Your task to perform on an android device: toggle notifications settings in the gmail app Image 0: 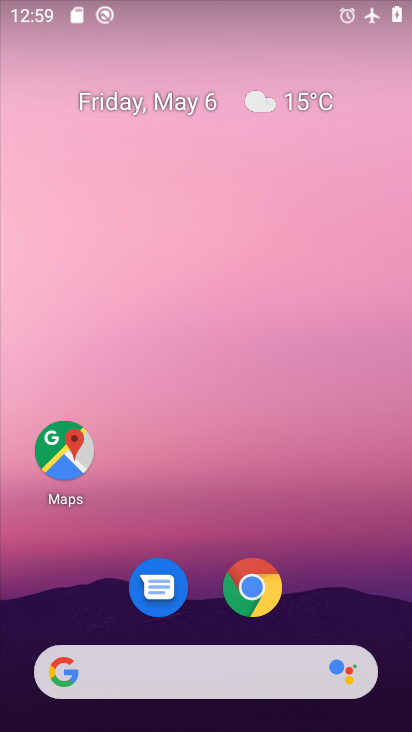
Step 0: drag from (371, 600) to (284, 25)
Your task to perform on an android device: toggle notifications settings in the gmail app Image 1: 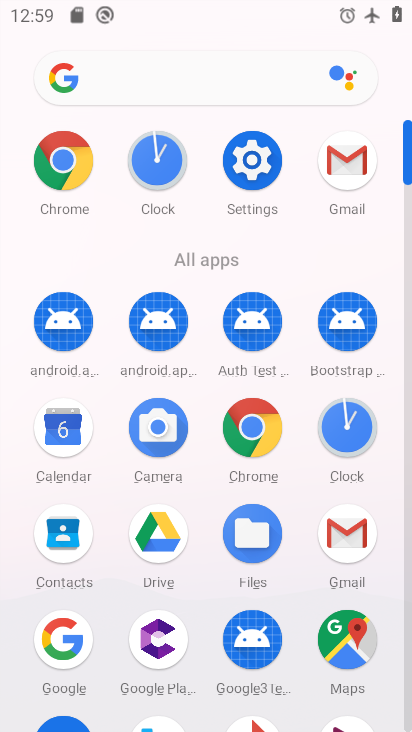
Step 1: click (348, 508)
Your task to perform on an android device: toggle notifications settings in the gmail app Image 2: 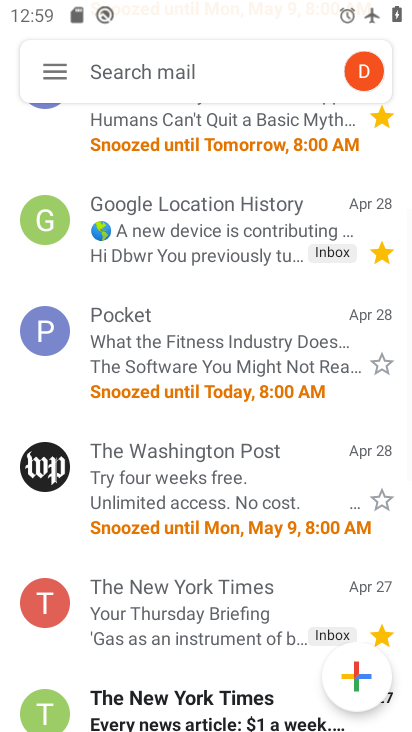
Step 2: click (60, 74)
Your task to perform on an android device: toggle notifications settings in the gmail app Image 3: 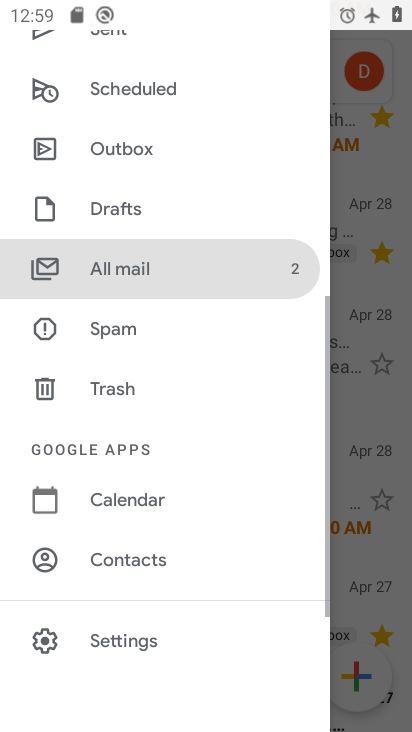
Step 3: click (131, 626)
Your task to perform on an android device: toggle notifications settings in the gmail app Image 4: 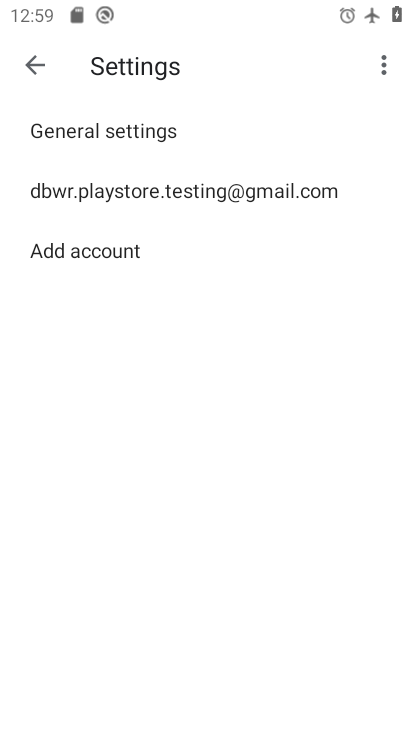
Step 4: click (178, 191)
Your task to perform on an android device: toggle notifications settings in the gmail app Image 5: 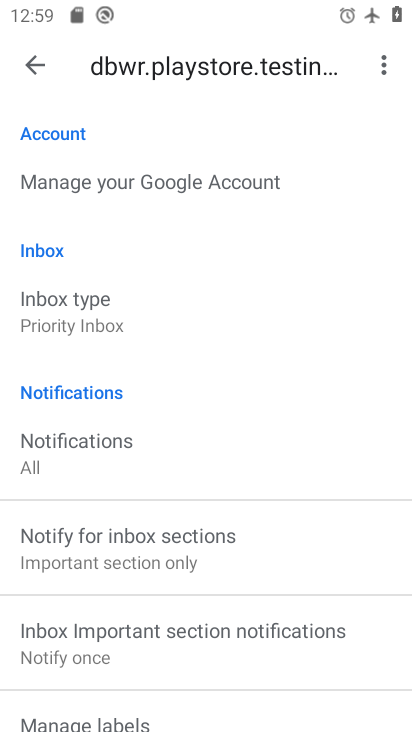
Step 5: click (149, 454)
Your task to perform on an android device: toggle notifications settings in the gmail app Image 6: 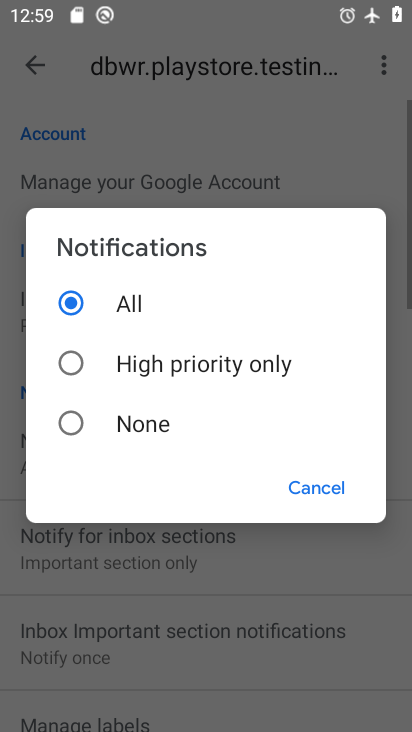
Step 6: click (149, 423)
Your task to perform on an android device: toggle notifications settings in the gmail app Image 7: 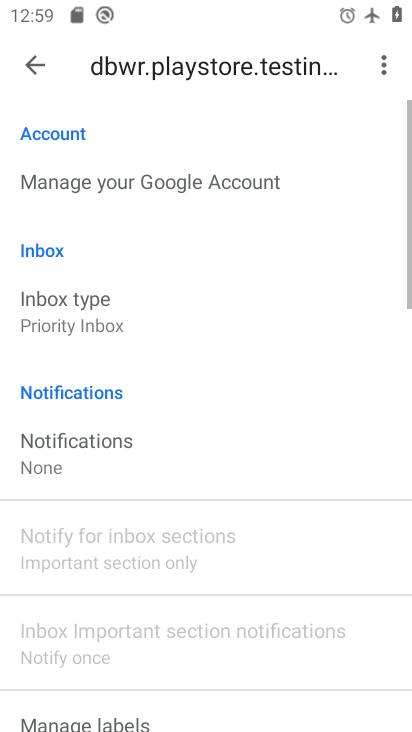
Step 7: task complete